Your task to perform on an android device: Add acer nitro to the cart on amazon.com, then select checkout. Image 0: 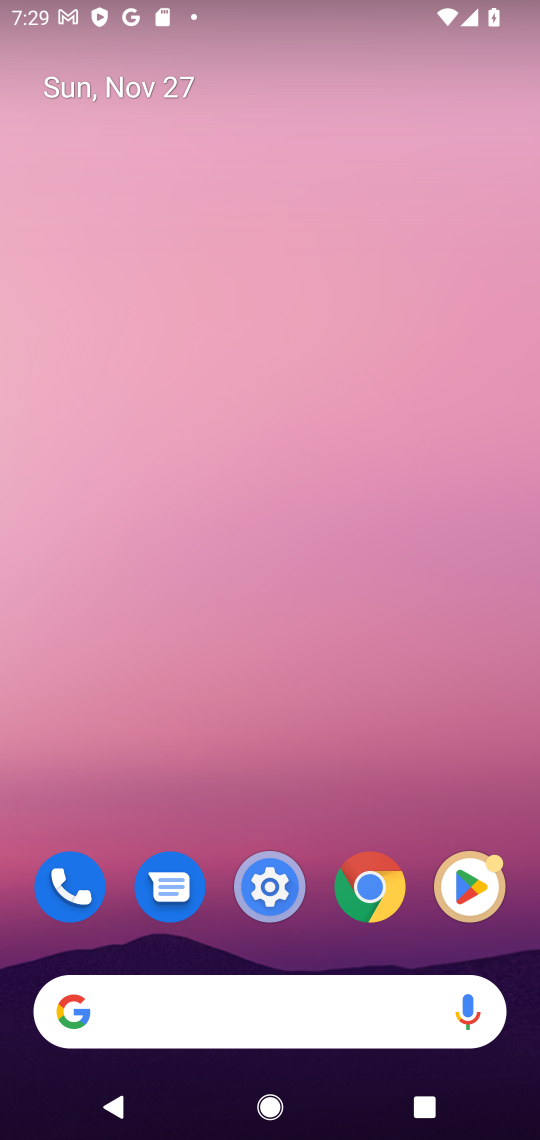
Step 0: click (182, 1016)
Your task to perform on an android device: Add acer nitro to the cart on amazon.com, then select checkout. Image 1: 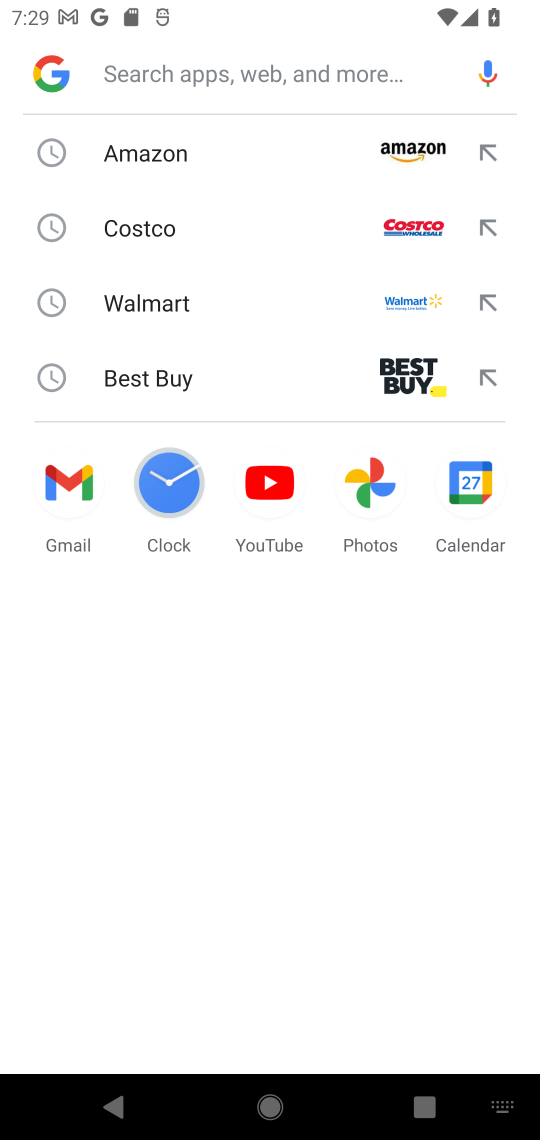
Step 1: click (232, 148)
Your task to perform on an android device: Add acer nitro to the cart on amazon.com, then select checkout. Image 2: 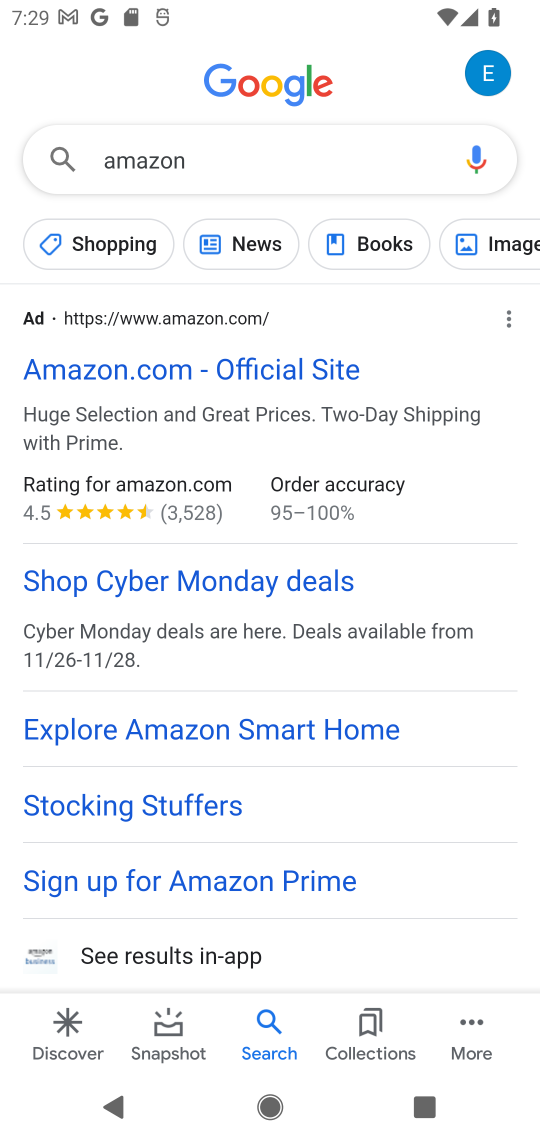
Step 2: click (260, 366)
Your task to perform on an android device: Add acer nitro to the cart on amazon.com, then select checkout. Image 3: 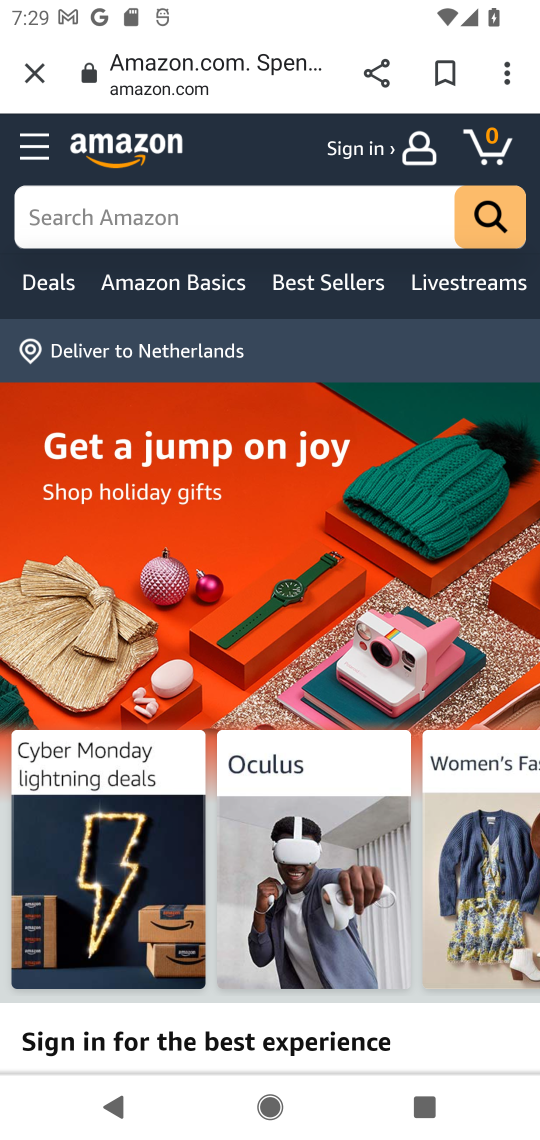
Step 3: click (153, 228)
Your task to perform on an android device: Add acer nitro to the cart on amazon.com, then select checkout. Image 4: 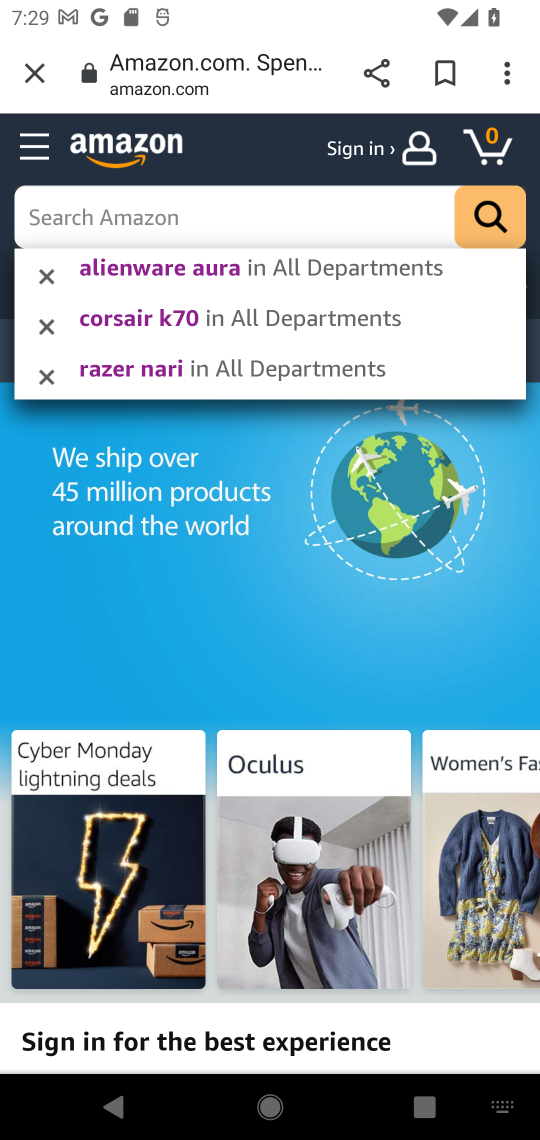
Step 4: type "acer nitro"
Your task to perform on an android device: Add acer nitro to the cart on amazon.com, then select checkout. Image 5: 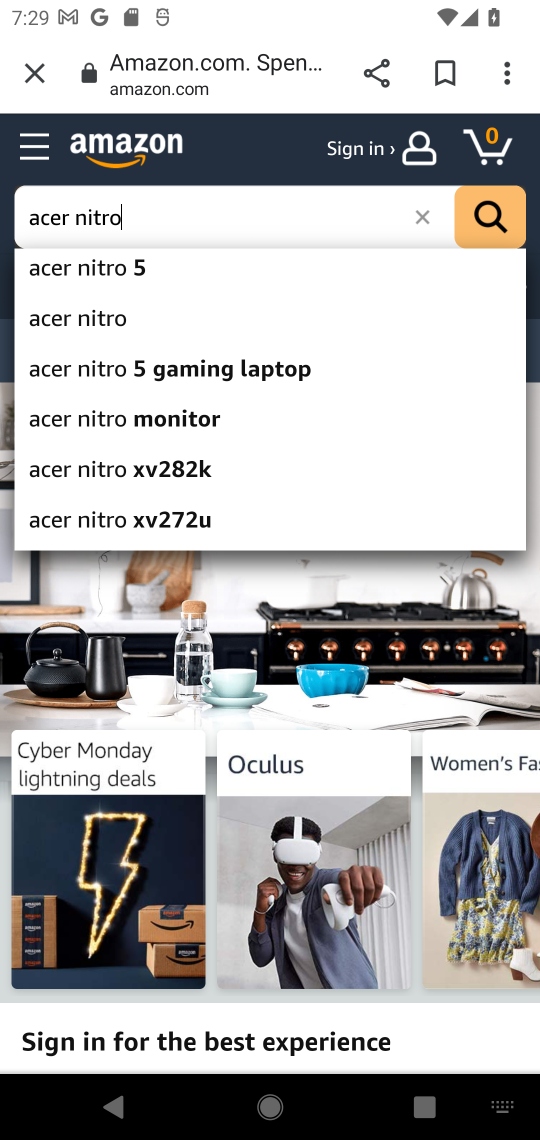
Step 5: click (499, 217)
Your task to perform on an android device: Add acer nitro to the cart on amazon.com, then select checkout. Image 6: 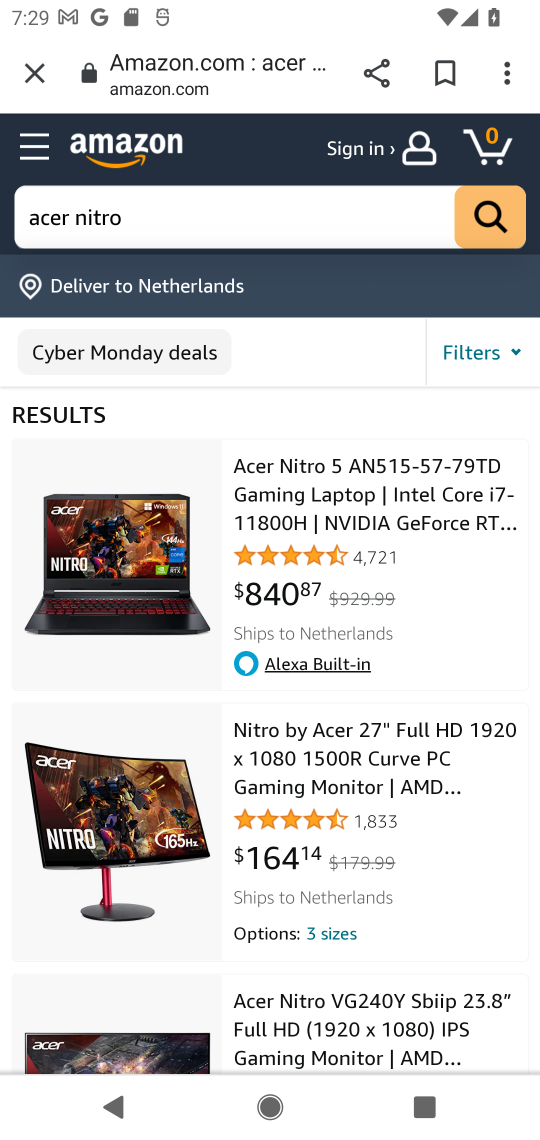
Step 6: click (331, 506)
Your task to perform on an android device: Add acer nitro to the cart on amazon.com, then select checkout. Image 7: 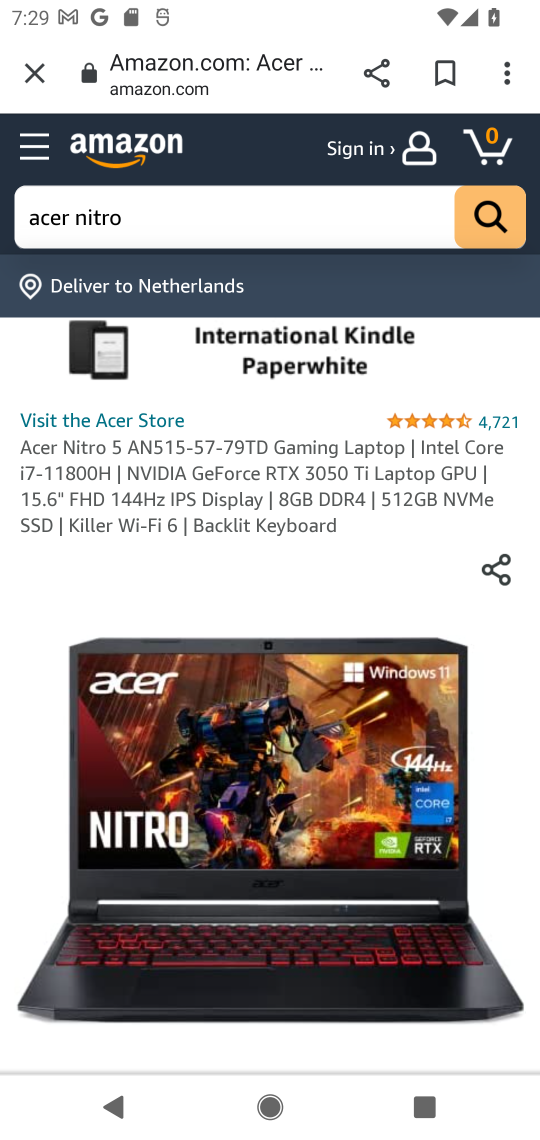
Step 7: drag from (373, 611) to (318, 320)
Your task to perform on an android device: Add acer nitro to the cart on amazon.com, then select checkout. Image 8: 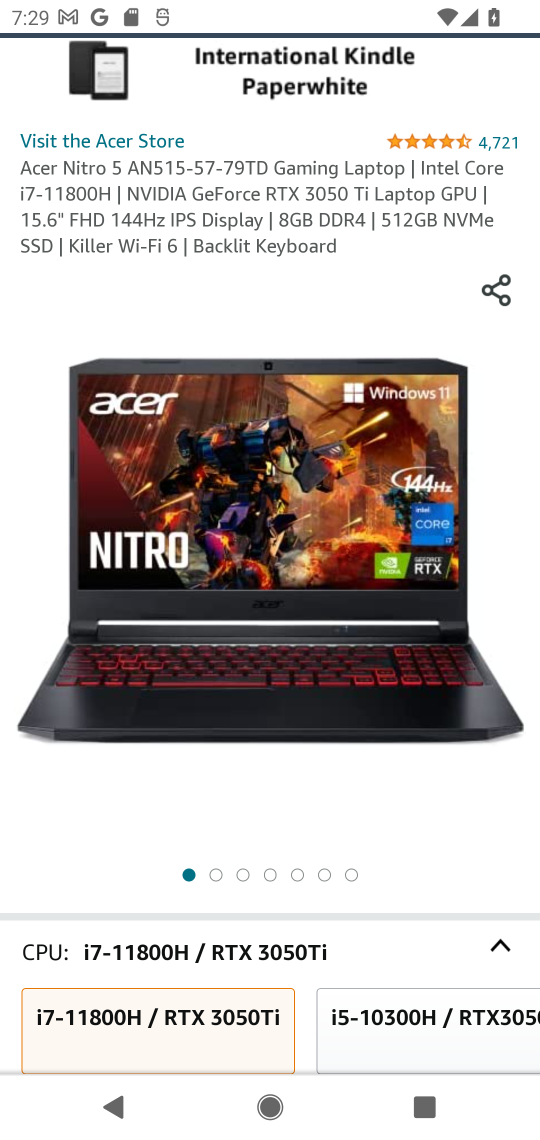
Step 8: drag from (447, 886) to (237, 344)
Your task to perform on an android device: Add acer nitro to the cart on amazon.com, then select checkout. Image 9: 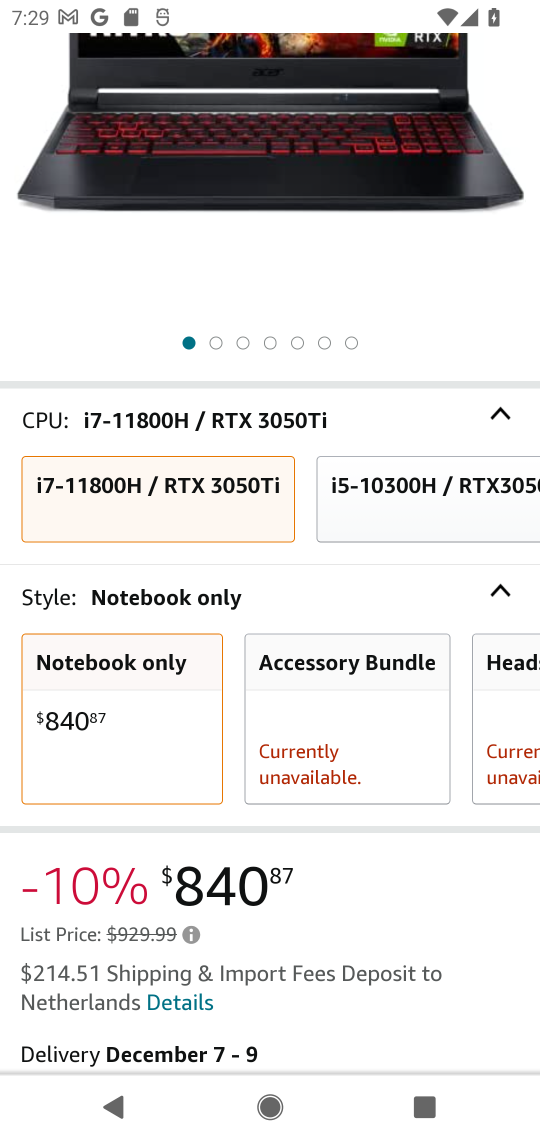
Step 9: drag from (449, 907) to (318, 381)
Your task to perform on an android device: Add acer nitro to the cart on amazon.com, then select checkout. Image 10: 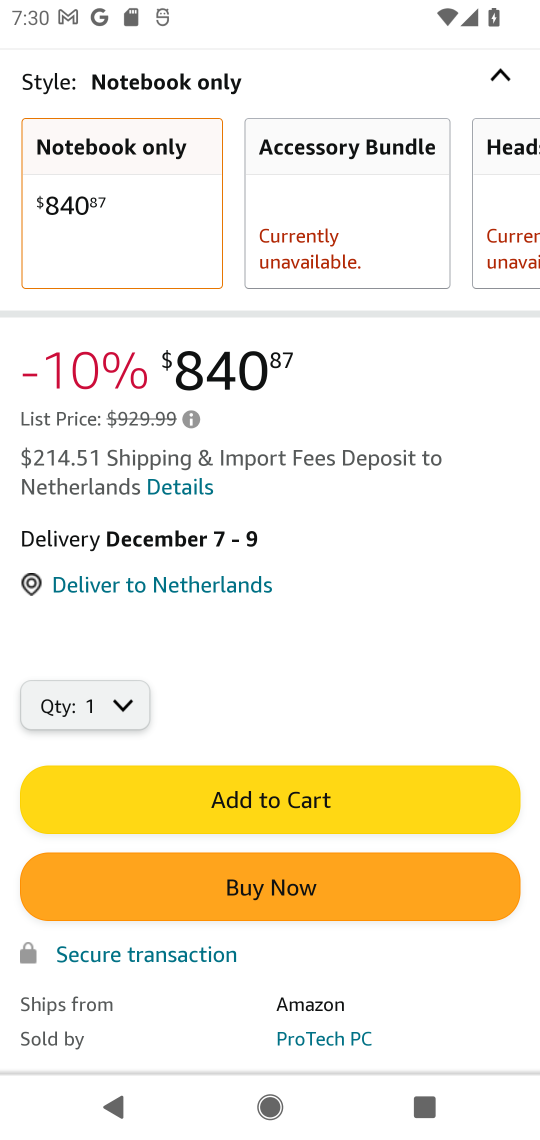
Step 10: click (340, 773)
Your task to perform on an android device: Add acer nitro to the cart on amazon.com, then select checkout. Image 11: 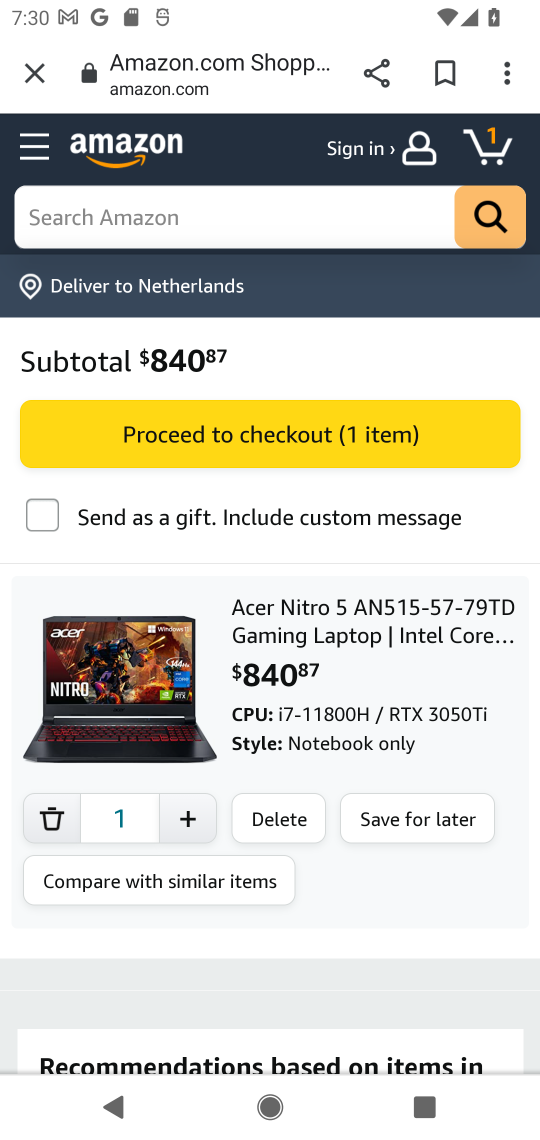
Step 11: task complete